Your task to perform on an android device: Open display settings Image 0: 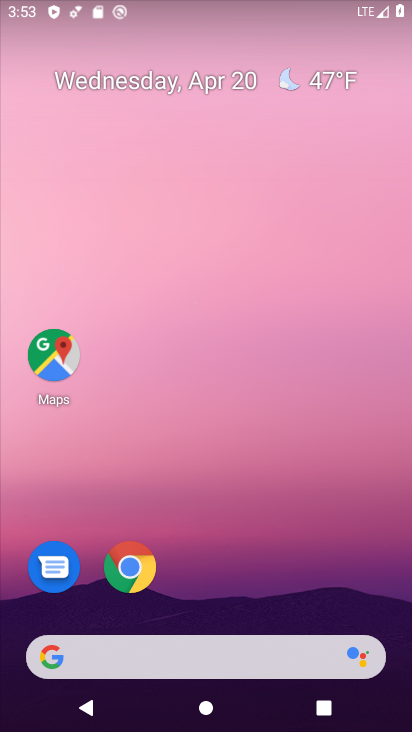
Step 0: drag from (308, 415) to (266, 9)
Your task to perform on an android device: Open display settings Image 1: 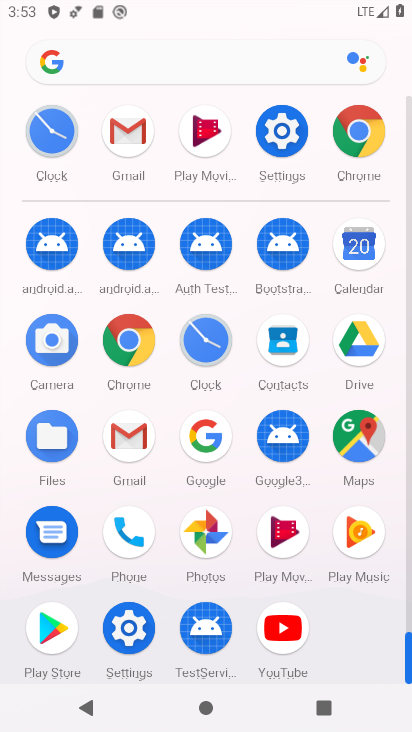
Step 1: click (127, 626)
Your task to perform on an android device: Open display settings Image 2: 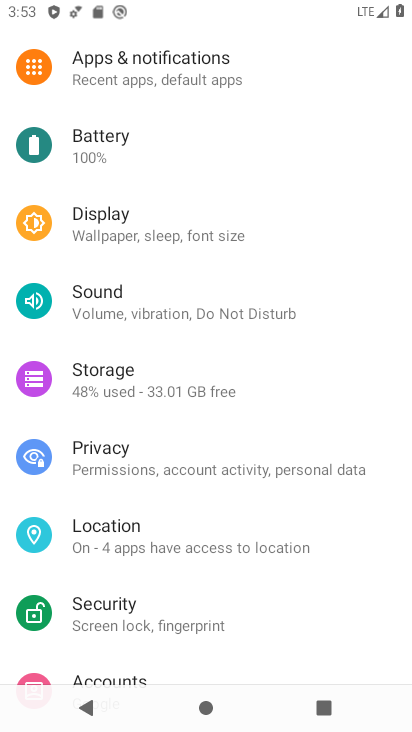
Step 2: drag from (241, 476) to (239, 137)
Your task to perform on an android device: Open display settings Image 3: 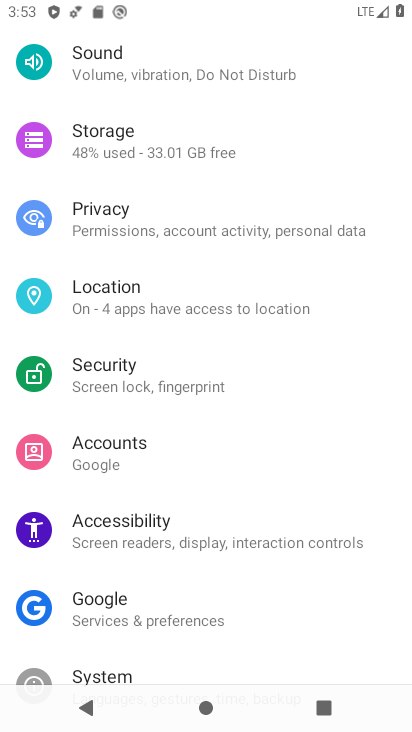
Step 3: drag from (225, 136) to (234, 510)
Your task to perform on an android device: Open display settings Image 4: 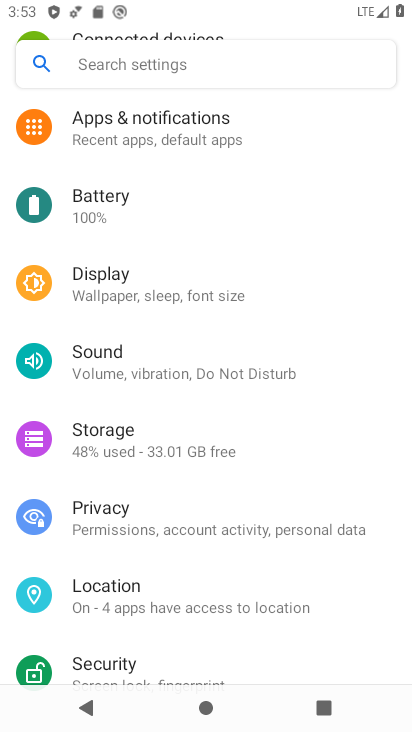
Step 4: drag from (201, 227) to (219, 375)
Your task to perform on an android device: Open display settings Image 5: 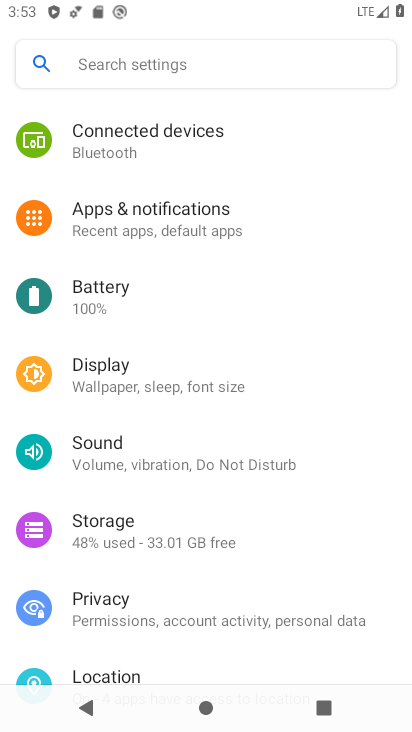
Step 5: click (146, 376)
Your task to perform on an android device: Open display settings Image 6: 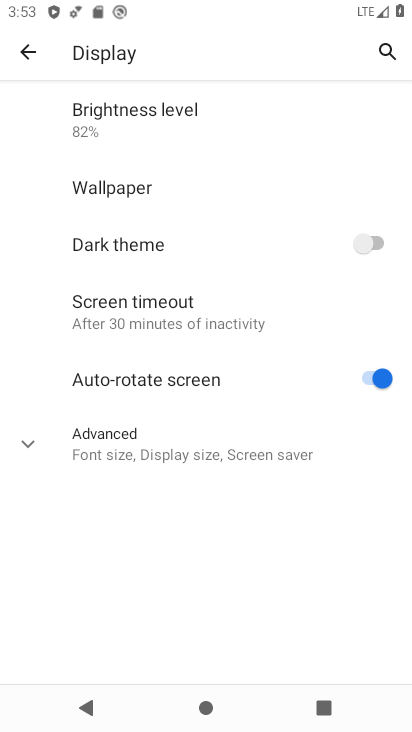
Step 6: click (57, 441)
Your task to perform on an android device: Open display settings Image 7: 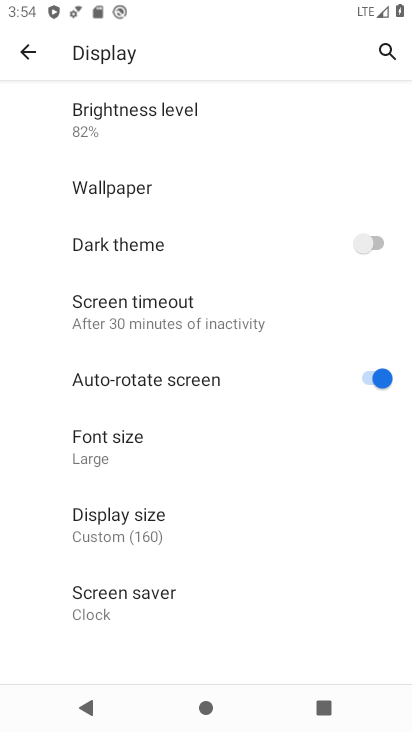
Step 7: task complete